Your task to perform on an android device: What's the weather going to be tomorrow? Image 0: 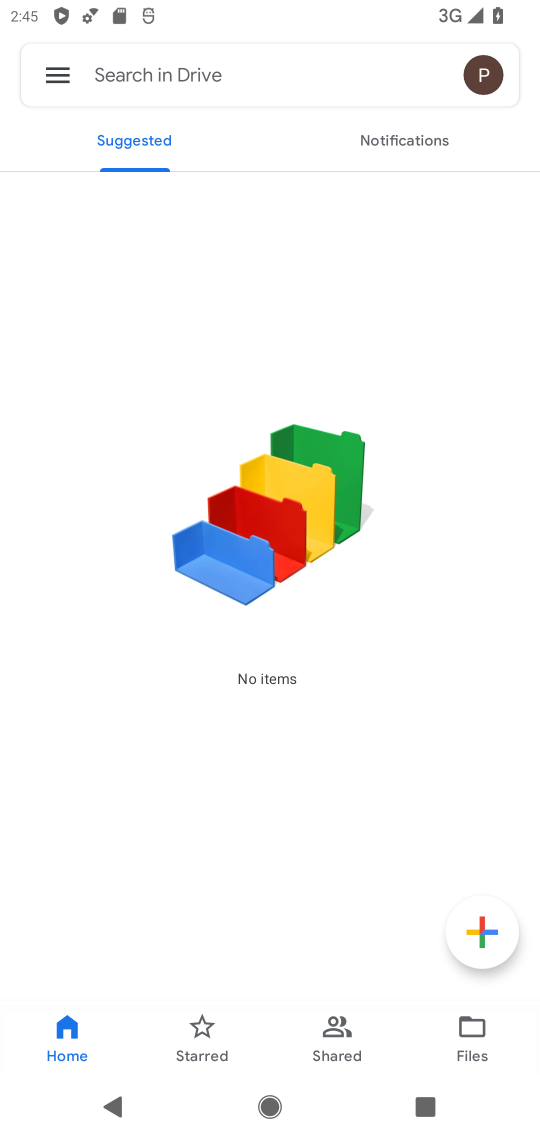
Step 0: press home button
Your task to perform on an android device: What's the weather going to be tomorrow? Image 1: 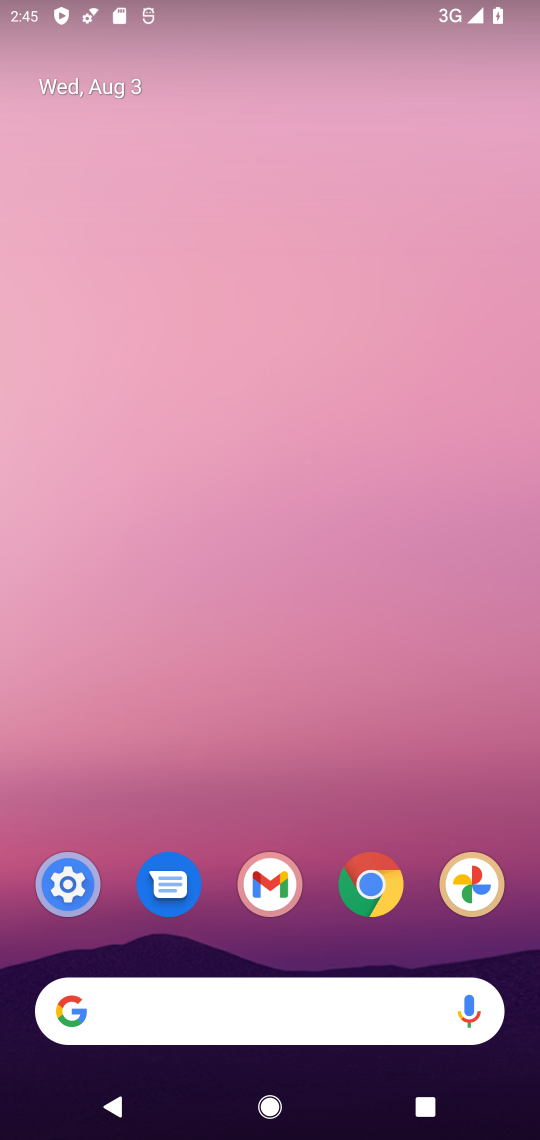
Step 1: click (237, 1019)
Your task to perform on an android device: What's the weather going to be tomorrow? Image 2: 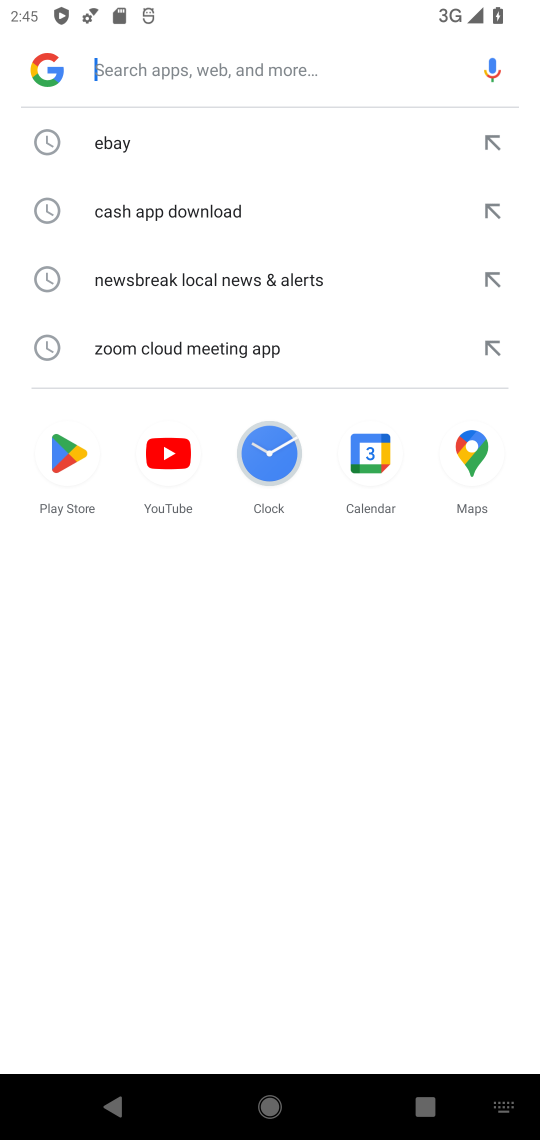
Step 2: type "weather"
Your task to perform on an android device: What's the weather going to be tomorrow? Image 3: 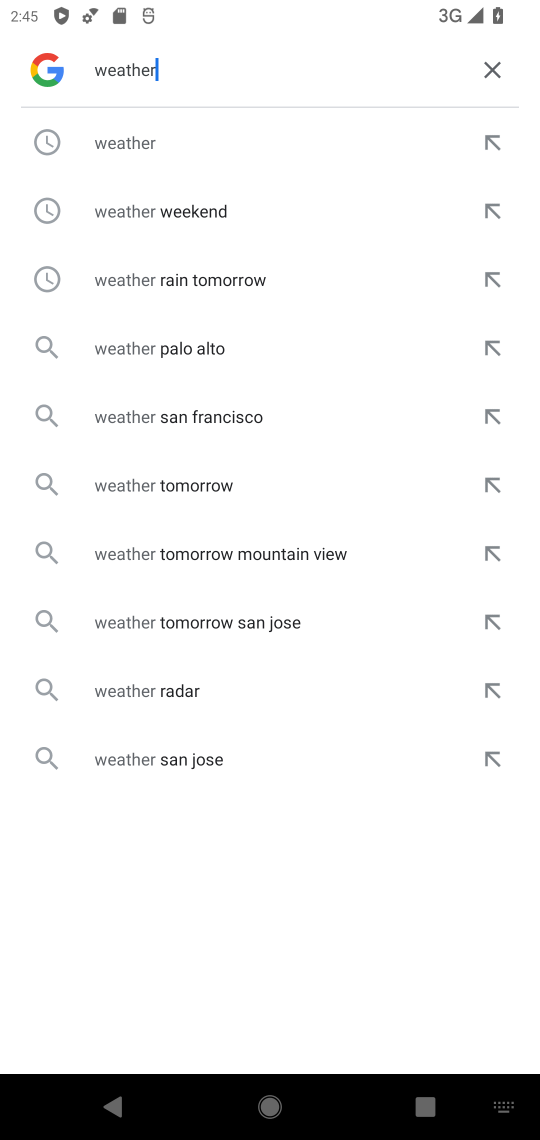
Step 3: click (182, 157)
Your task to perform on an android device: What's the weather going to be tomorrow? Image 4: 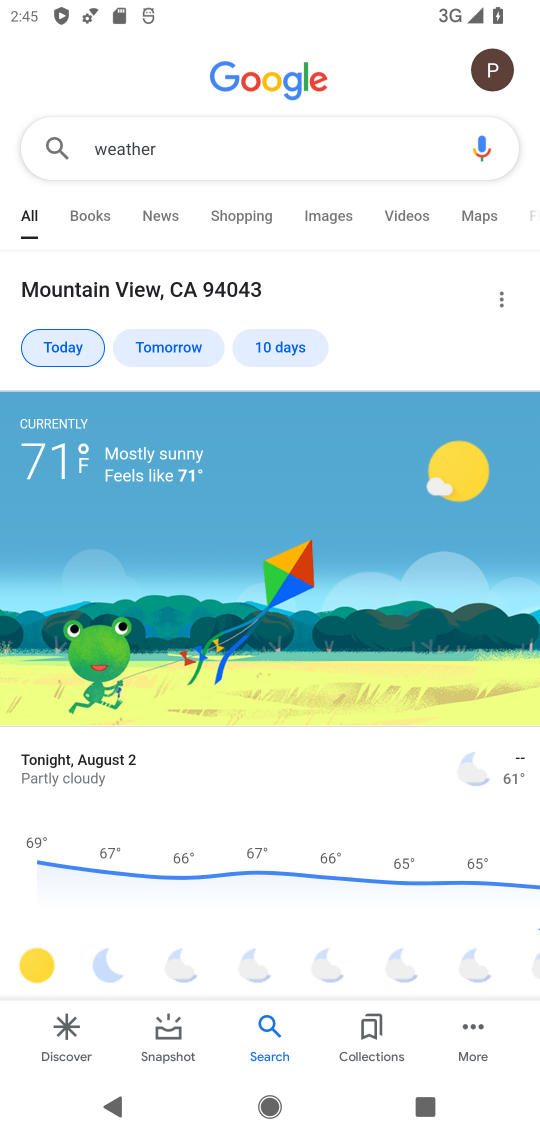
Step 4: click (169, 353)
Your task to perform on an android device: What's the weather going to be tomorrow? Image 5: 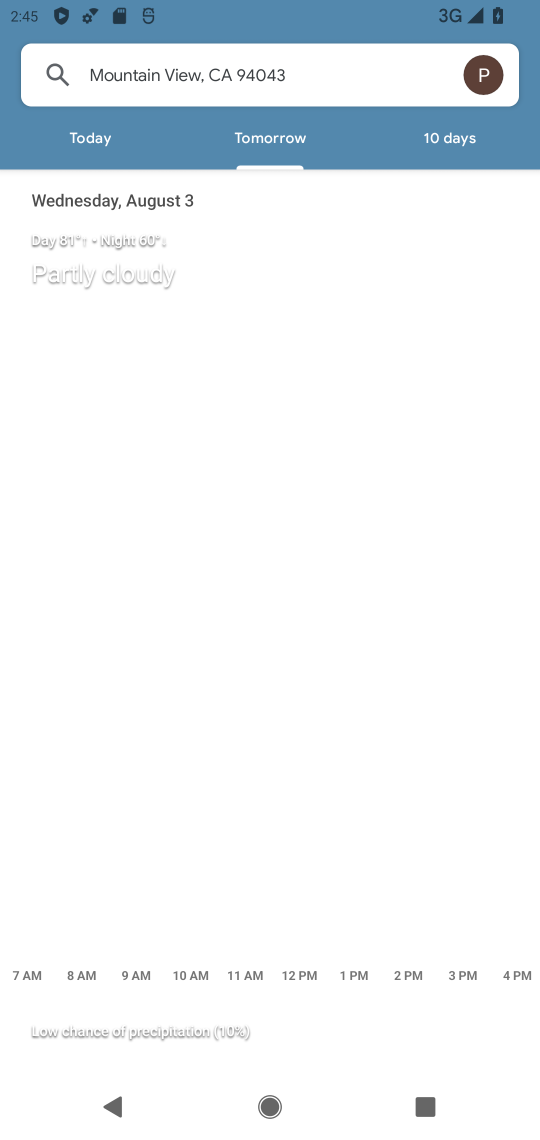
Step 5: task complete